Your task to perform on an android device: clear history in the chrome app Image 0: 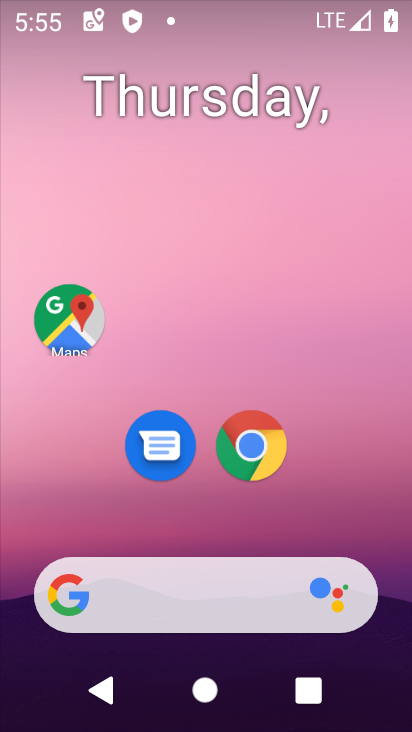
Step 0: drag from (317, 506) to (364, 180)
Your task to perform on an android device: clear history in the chrome app Image 1: 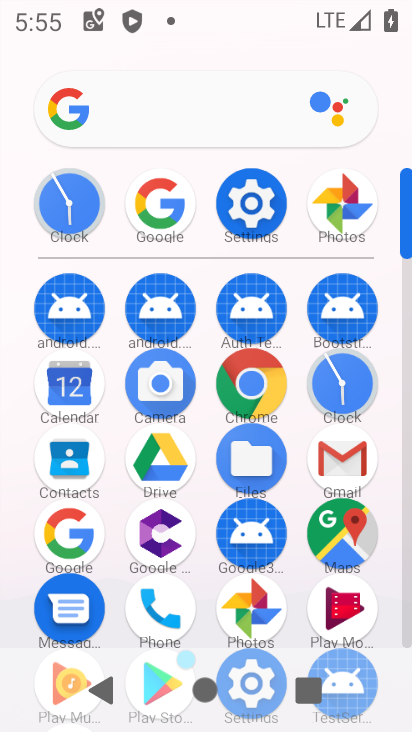
Step 1: click (255, 374)
Your task to perform on an android device: clear history in the chrome app Image 2: 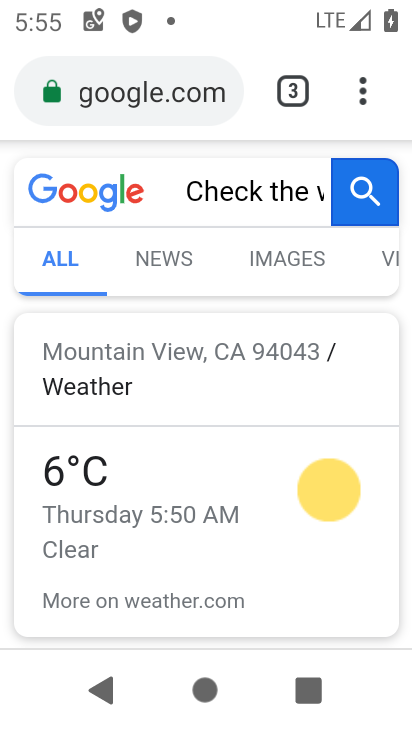
Step 2: drag from (362, 90) to (175, 317)
Your task to perform on an android device: clear history in the chrome app Image 3: 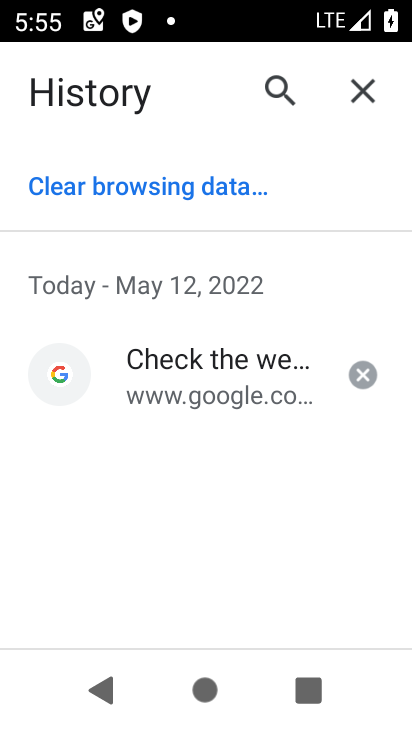
Step 3: click (32, 360)
Your task to perform on an android device: clear history in the chrome app Image 4: 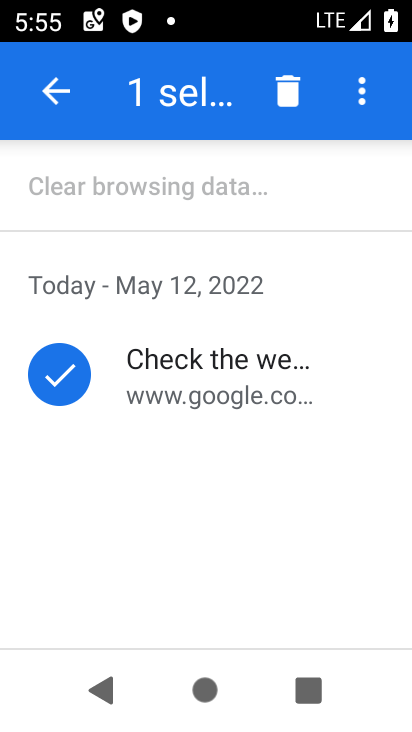
Step 4: click (302, 85)
Your task to perform on an android device: clear history in the chrome app Image 5: 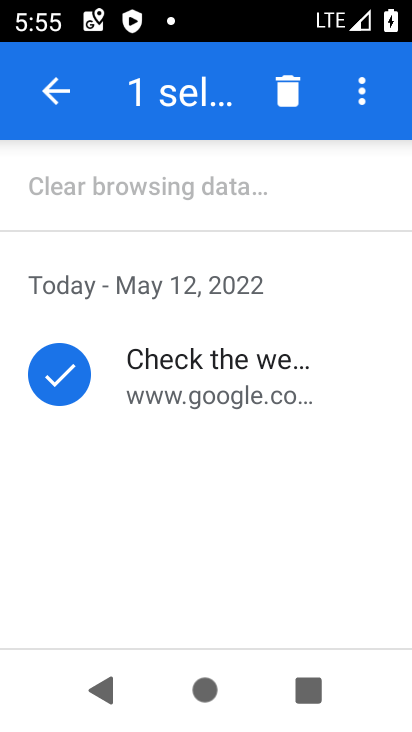
Step 5: click (285, 96)
Your task to perform on an android device: clear history in the chrome app Image 6: 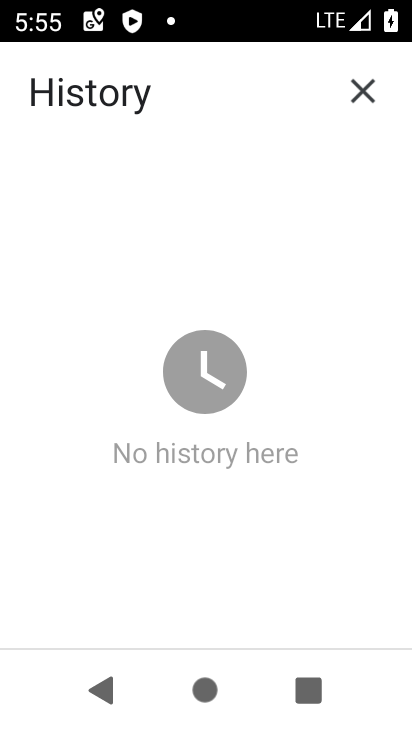
Step 6: task complete